Your task to perform on an android device: What's on my calendar today? Image 0: 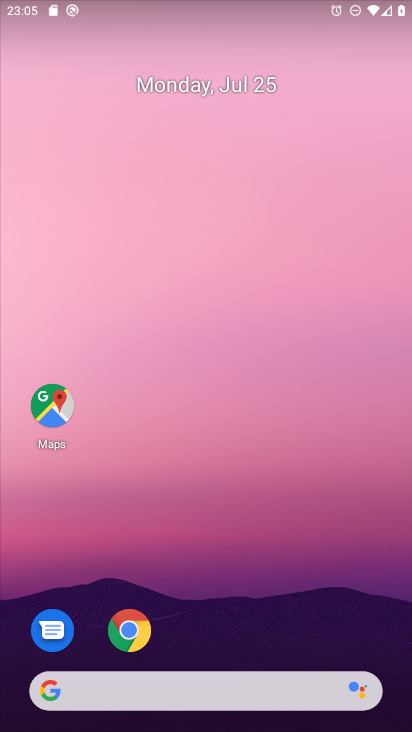
Step 0: drag from (344, 608) to (260, 128)
Your task to perform on an android device: What's on my calendar today? Image 1: 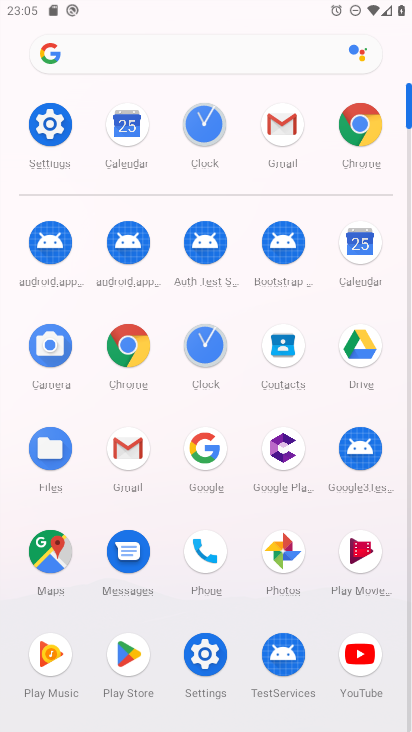
Step 1: click (367, 254)
Your task to perform on an android device: What's on my calendar today? Image 2: 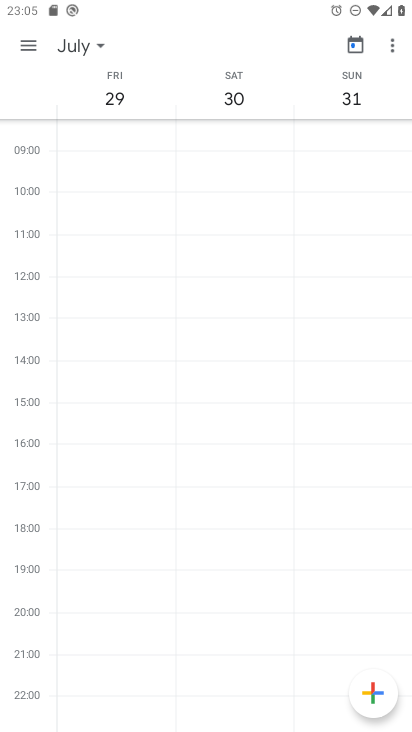
Step 2: click (89, 48)
Your task to perform on an android device: What's on my calendar today? Image 3: 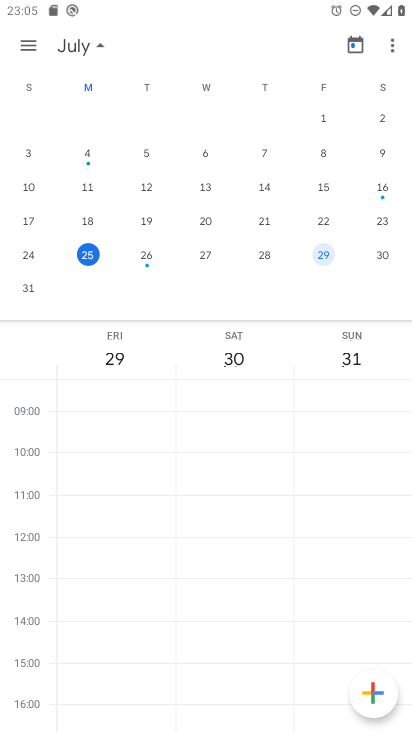
Step 3: click (89, 257)
Your task to perform on an android device: What's on my calendar today? Image 4: 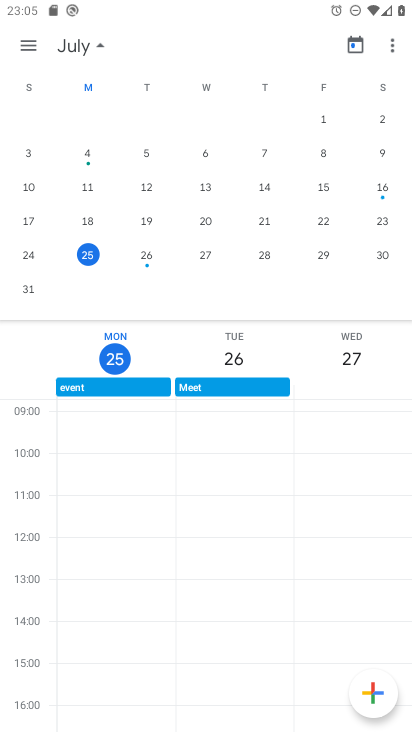
Step 4: task complete